Your task to perform on an android device: turn on airplane mode Image 0: 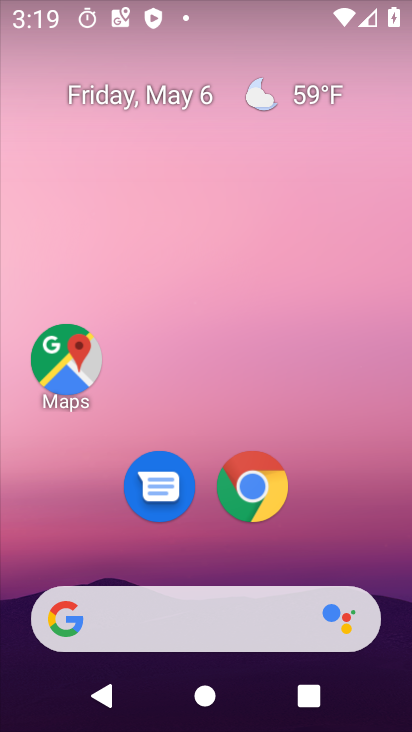
Step 0: drag from (338, 519) to (410, 351)
Your task to perform on an android device: turn on airplane mode Image 1: 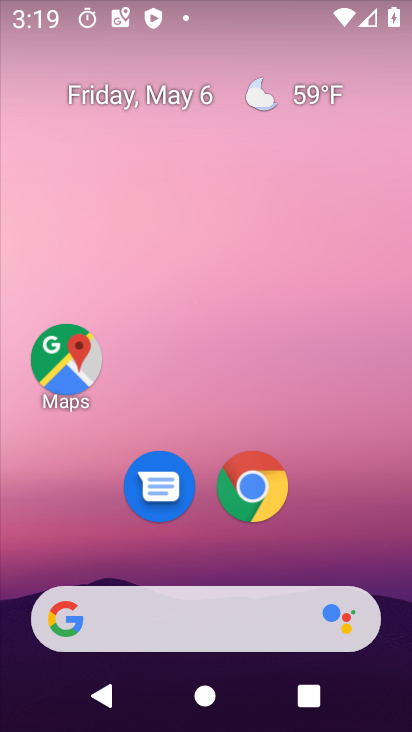
Step 1: drag from (347, 518) to (237, 5)
Your task to perform on an android device: turn on airplane mode Image 2: 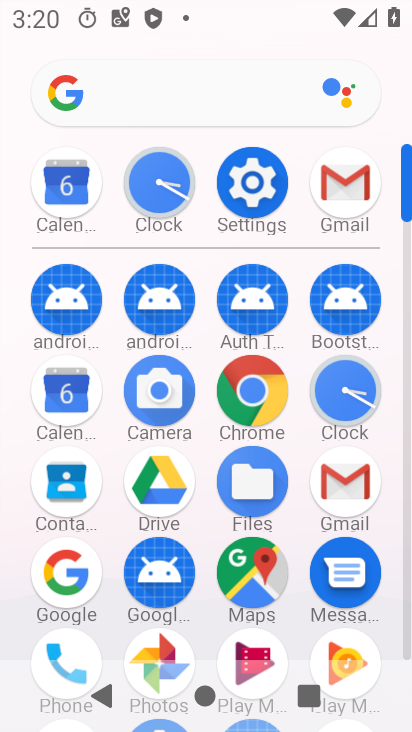
Step 2: click (257, 187)
Your task to perform on an android device: turn on airplane mode Image 3: 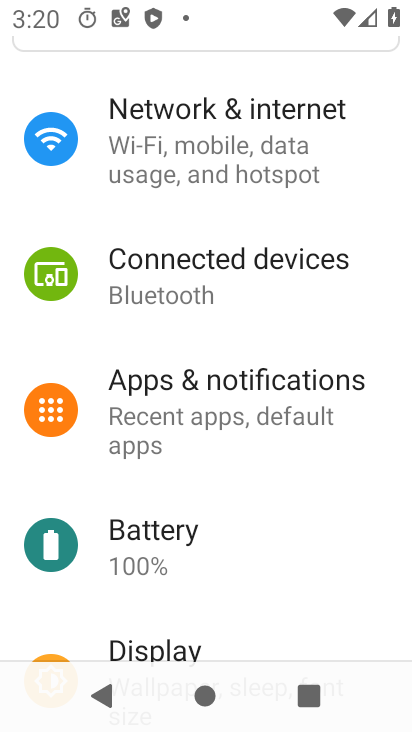
Step 3: click (222, 253)
Your task to perform on an android device: turn on airplane mode Image 4: 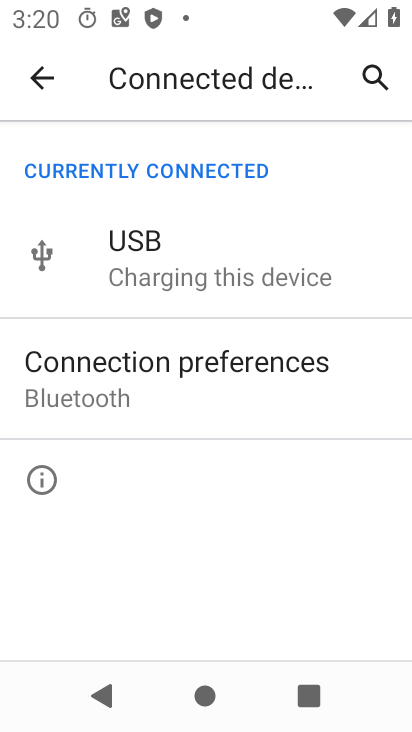
Step 4: click (40, 83)
Your task to perform on an android device: turn on airplane mode Image 5: 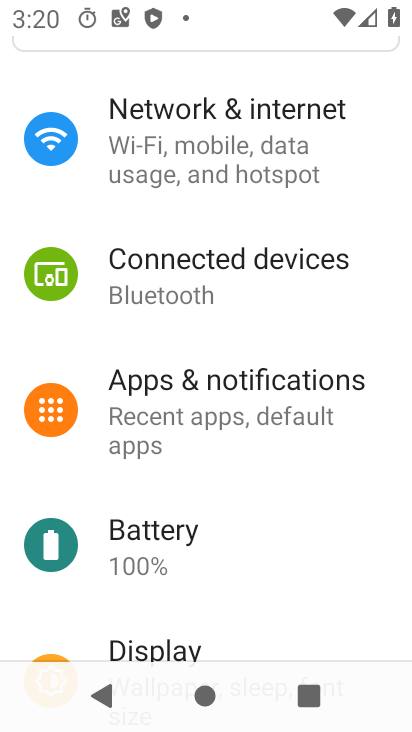
Step 5: drag from (203, 576) to (157, 240)
Your task to perform on an android device: turn on airplane mode Image 6: 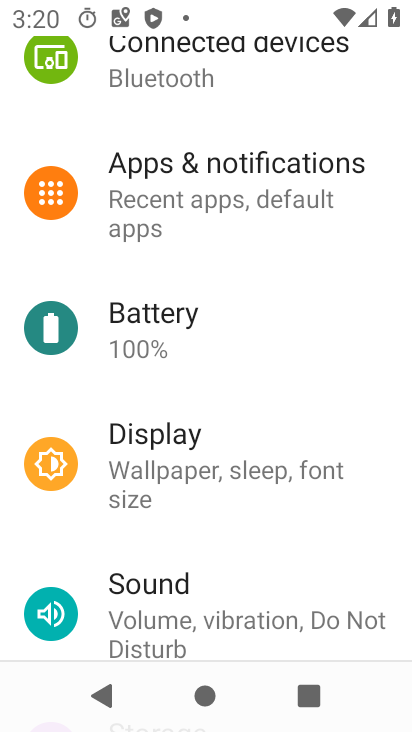
Step 6: click (164, 442)
Your task to perform on an android device: turn on airplane mode Image 7: 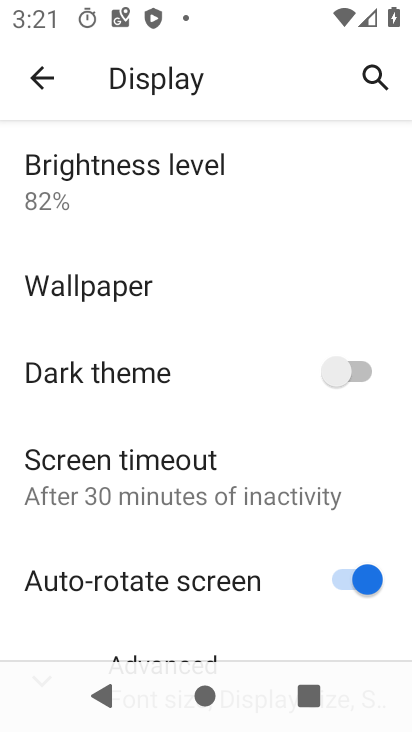
Step 7: task complete